Your task to perform on an android device: What's the weather? Image 0: 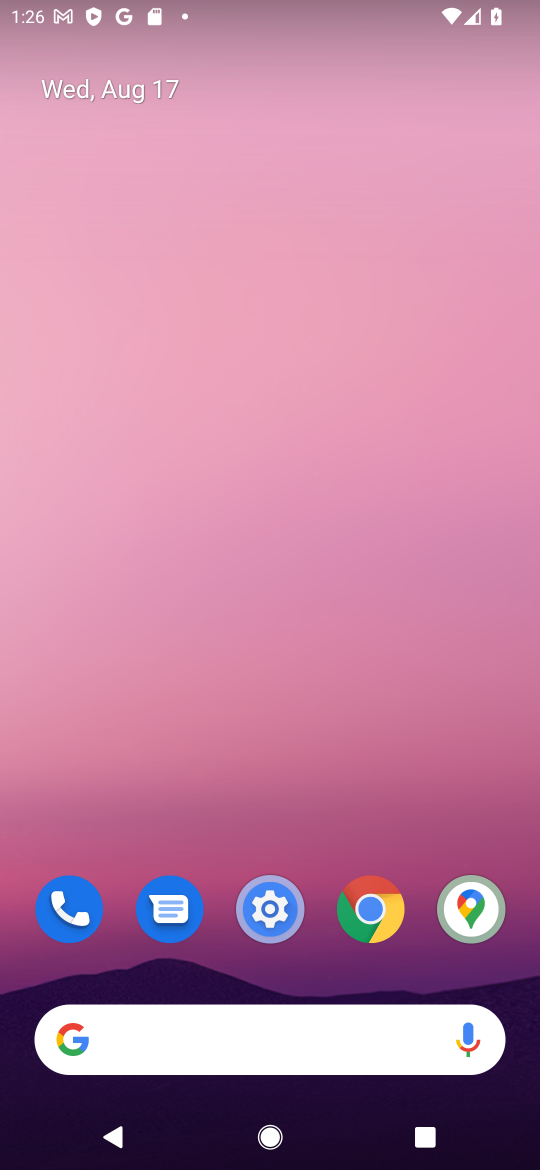
Step 0: drag from (277, 825) to (365, 282)
Your task to perform on an android device: What's the weather? Image 1: 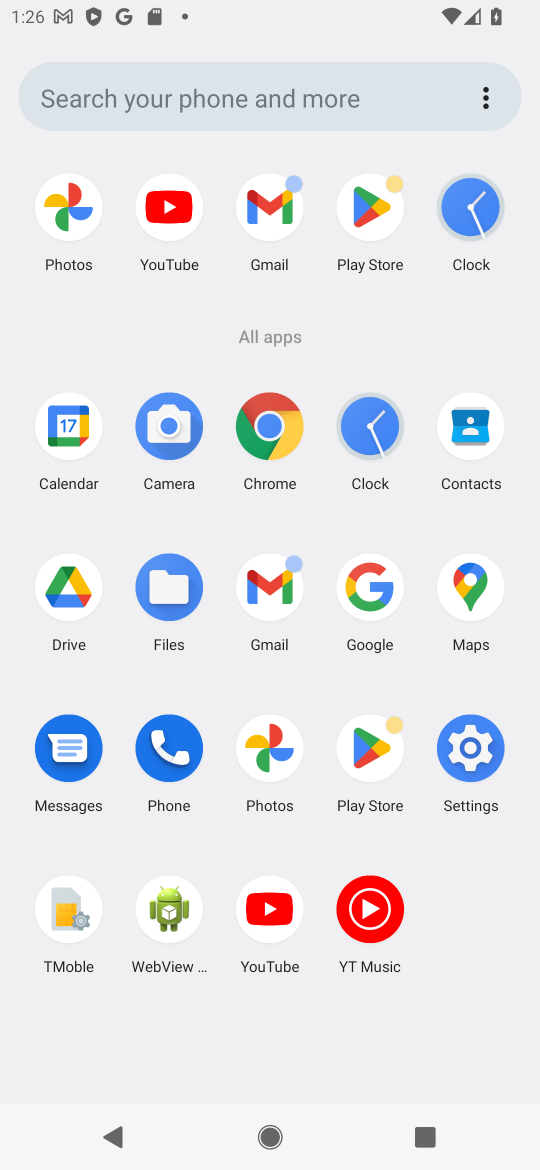
Step 1: drag from (208, 1140) to (99, 1135)
Your task to perform on an android device: What's the weather? Image 2: 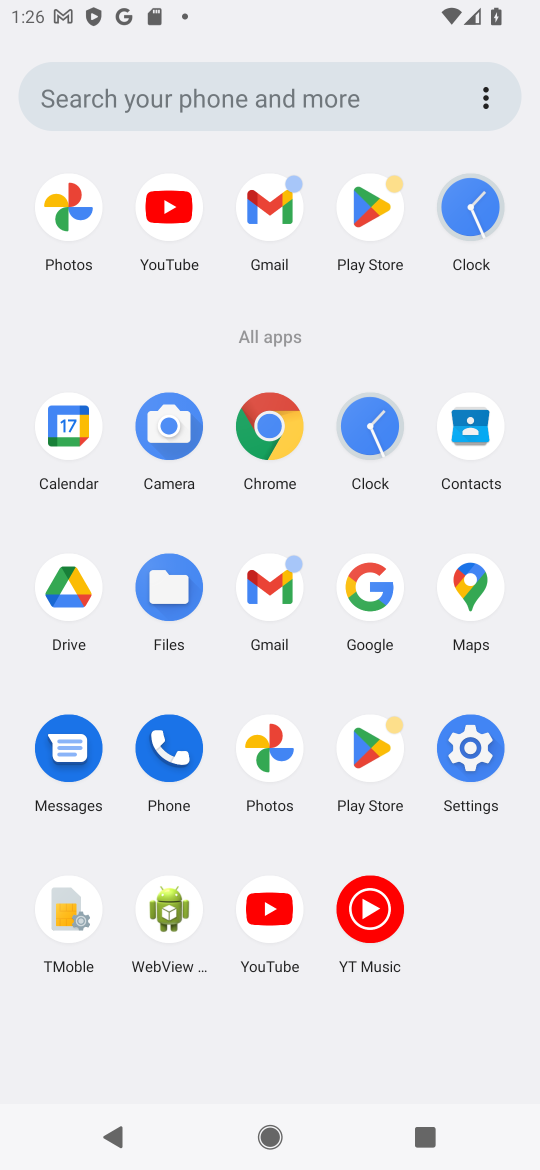
Step 2: click (349, 583)
Your task to perform on an android device: What's the weather? Image 3: 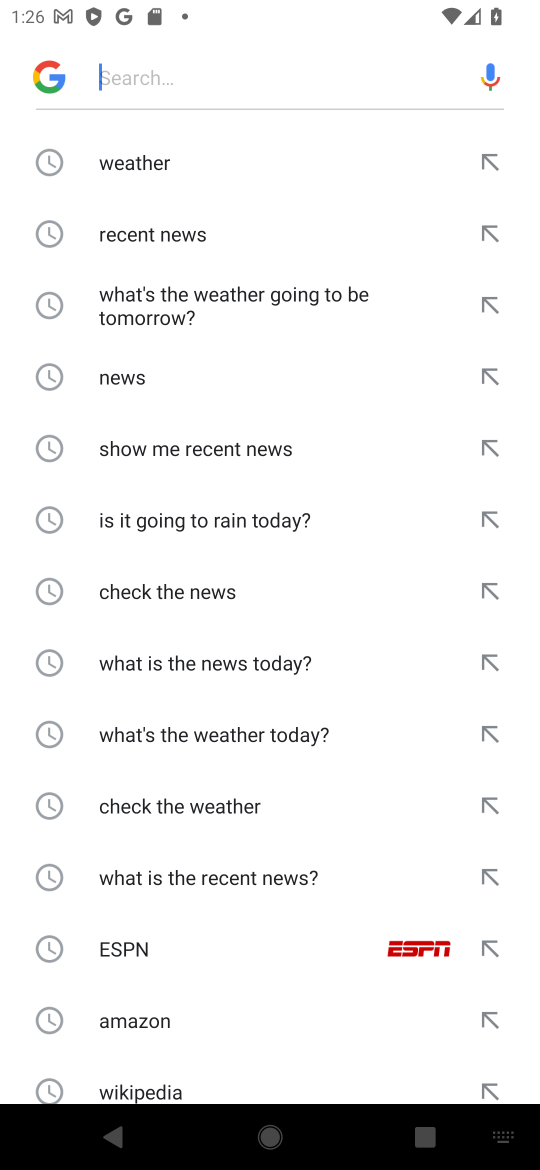
Step 3: type " What's the weather?"
Your task to perform on an android device: What's the weather? Image 4: 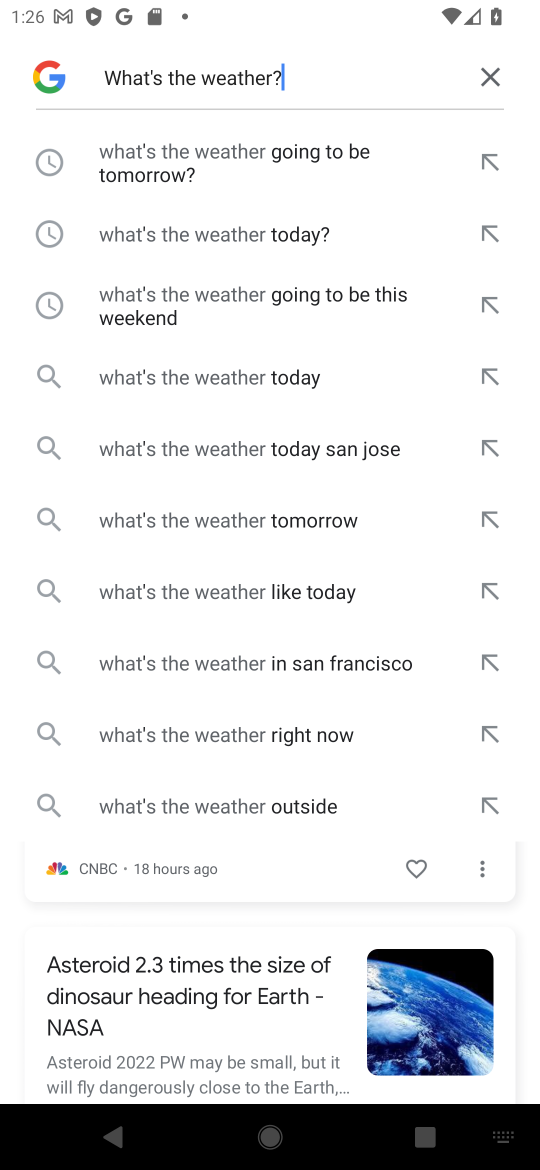
Step 4: press enter
Your task to perform on an android device: What's the weather? Image 5: 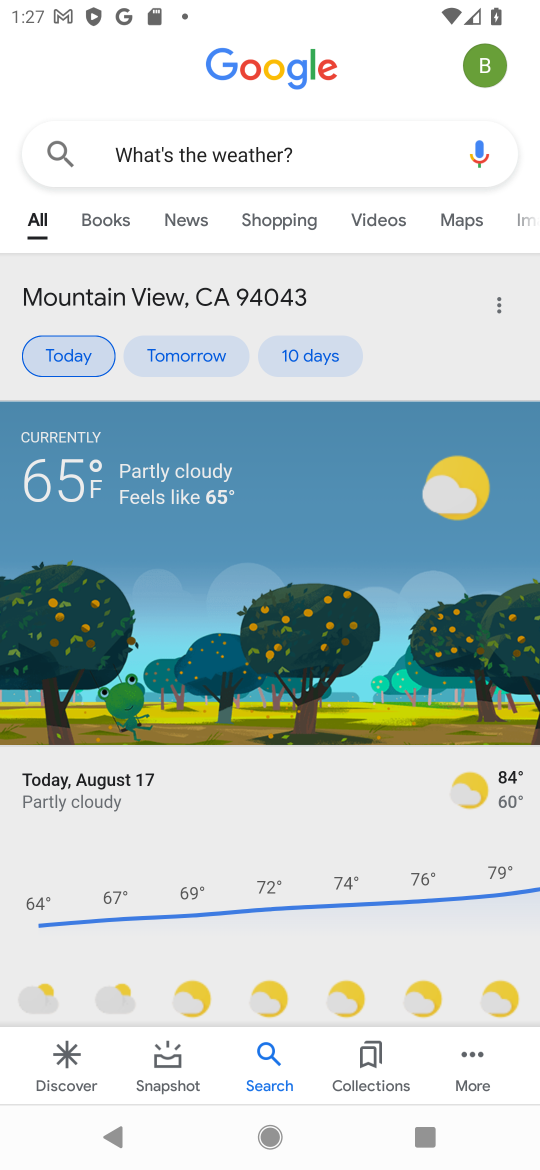
Step 5: task complete